Your task to perform on an android device: Open Yahoo.com Image 0: 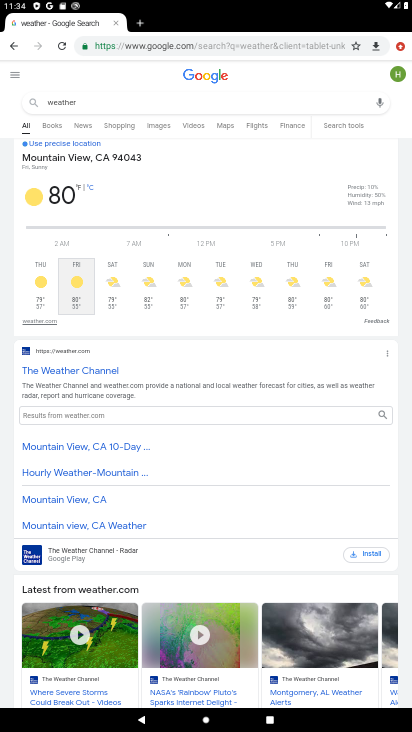
Step 0: press home button
Your task to perform on an android device: Open Yahoo.com Image 1: 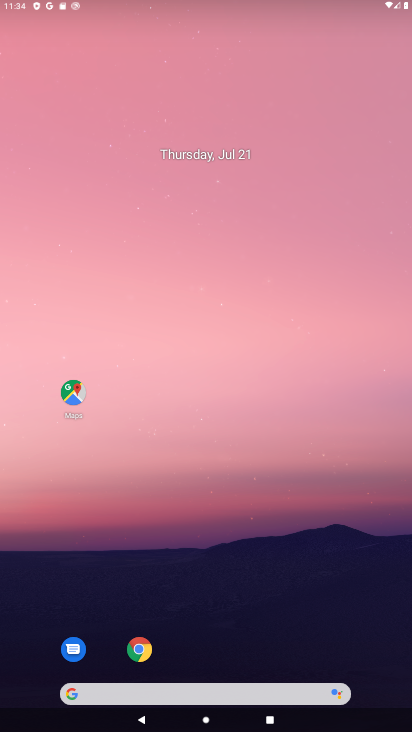
Step 1: drag from (362, 582) to (245, 111)
Your task to perform on an android device: Open Yahoo.com Image 2: 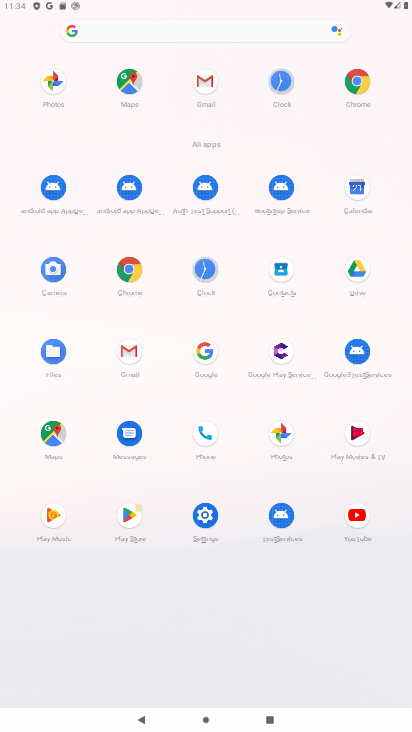
Step 2: click (355, 75)
Your task to perform on an android device: Open Yahoo.com Image 3: 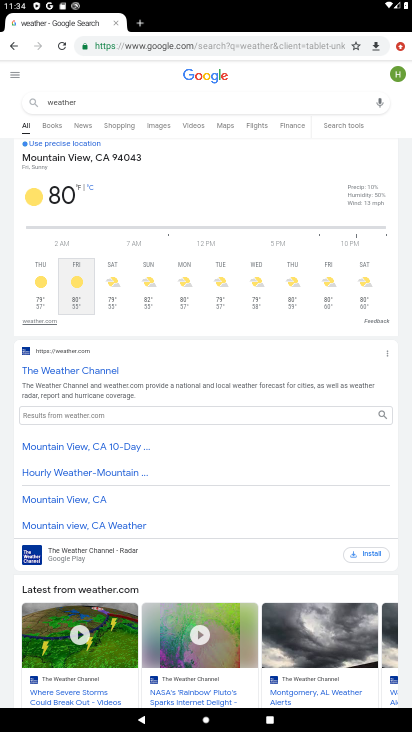
Step 3: click (252, 48)
Your task to perform on an android device: Open Yahoo.com Image 4: 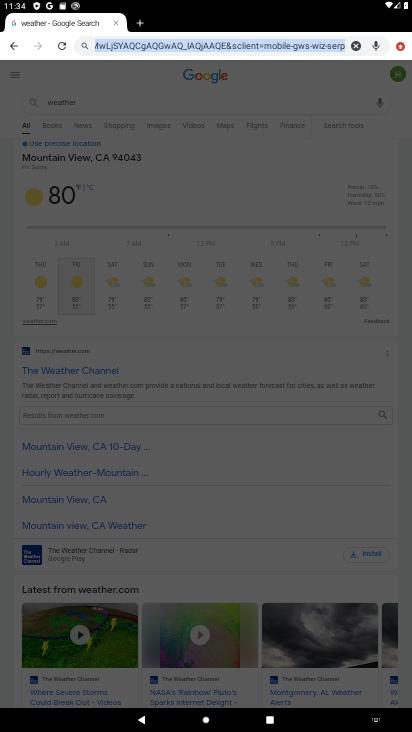
Step 4: type "yahoo.com"
Your task to perform on an android device: Open Yahoo.com Image 5: 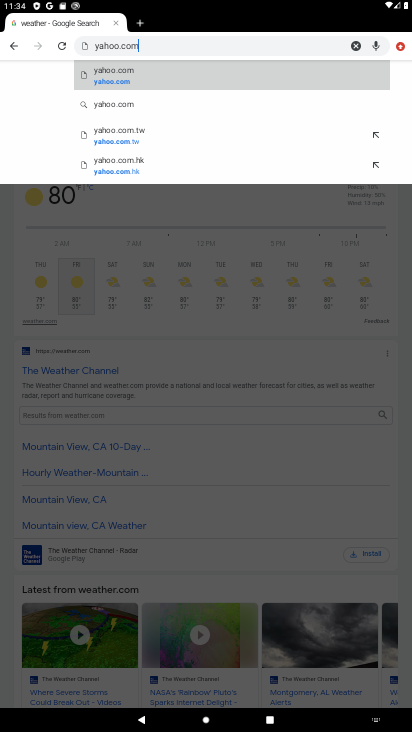
Step 5: click (114, 82)
Your task to perform on an android device: Open Yahoo.com Image 6: 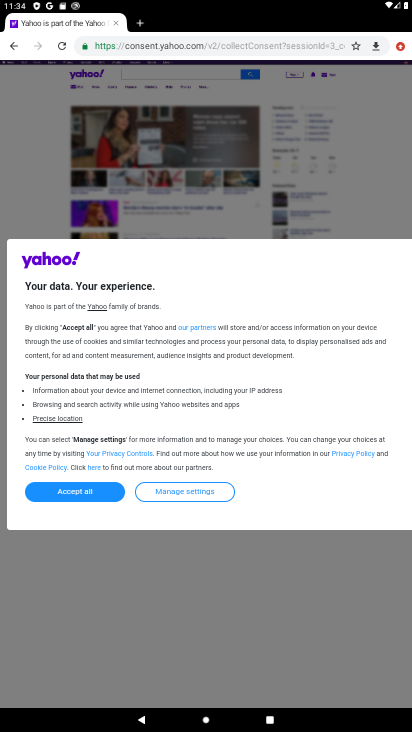
Step 6: task complete